Your task to perform on an android device: turn on javascript in the chrome app Image 0: 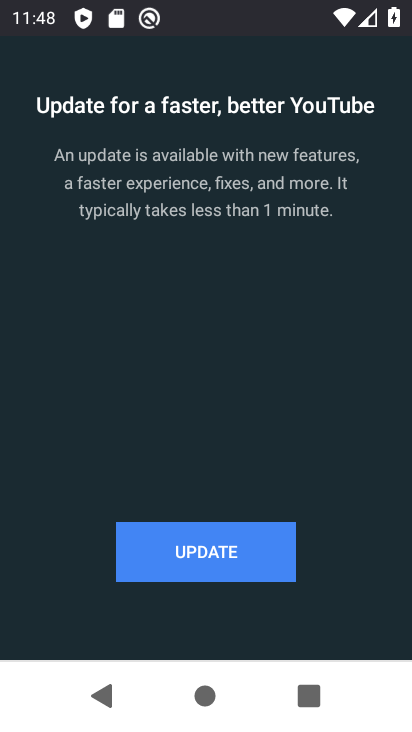
Step 0: press home button
Your task to perform on an android device: turn on javascript in the chrome app Image 1: 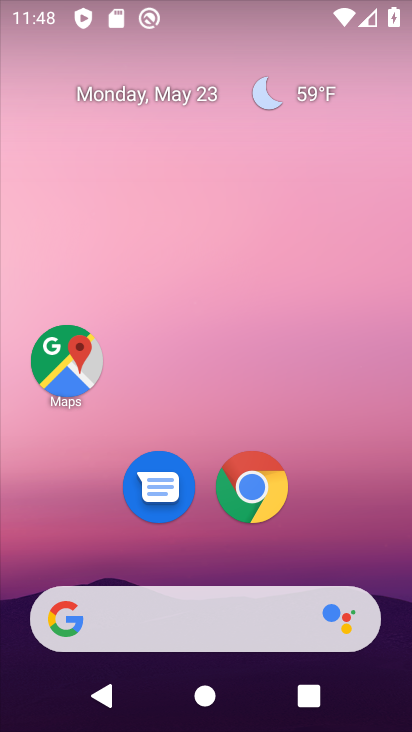
Step 1: click (262, 478)
Your task to perform on an android device: turn on javascript in the chrome app Image 2: 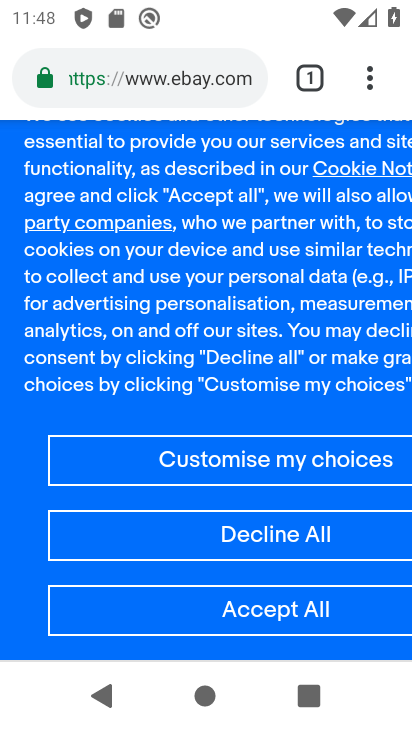
Step 2: click (372, 86)
Your task to perform on an android device: turn on javascript in the chrome app Image 3: 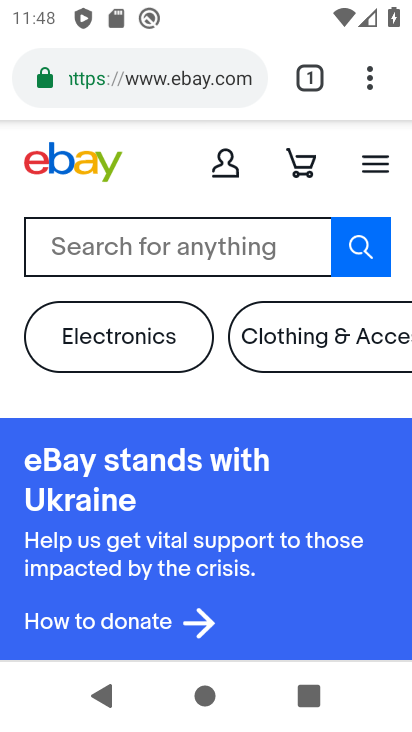
Step 3: click (372, 86)
Your task to perform on an android device: turn on javascript in the chrome app Image 4: 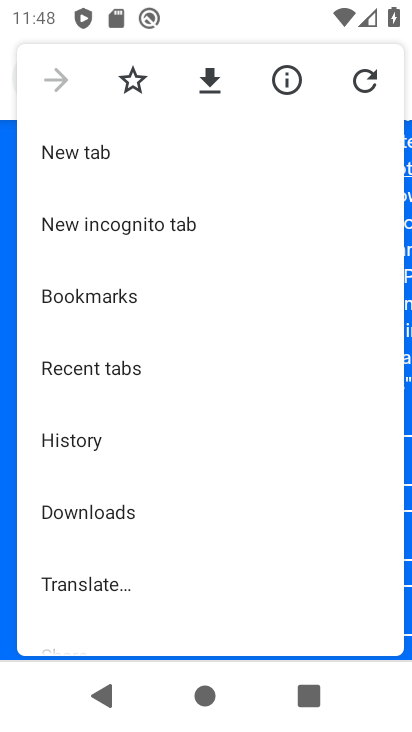
Step 4: drag from (146, 573) to (231, 161)
Your task to perform on an android device: turn on javascript in the chrome app Image 5: 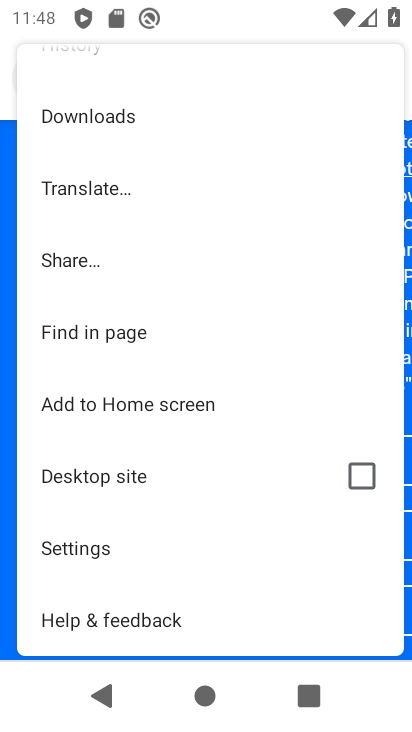
Step 5: click (190, 548)
Your task to perform on an android device: turn on javascript in the chrome app Image 6: 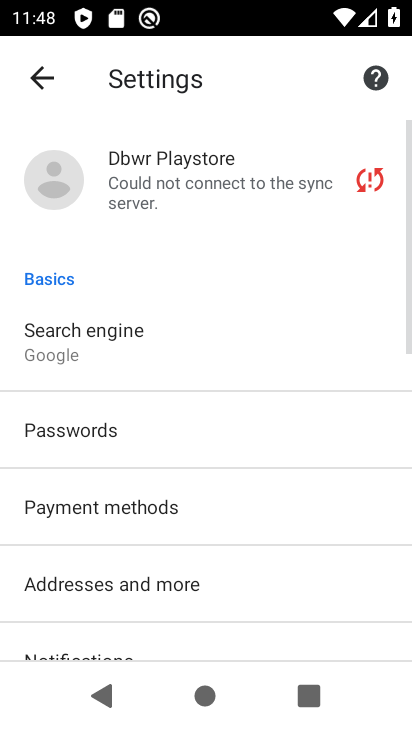
Step 6: drag from (190, 603) to (214, 101)
Your task to perform on an android device: turn on javascript in the chrome app Image 7: 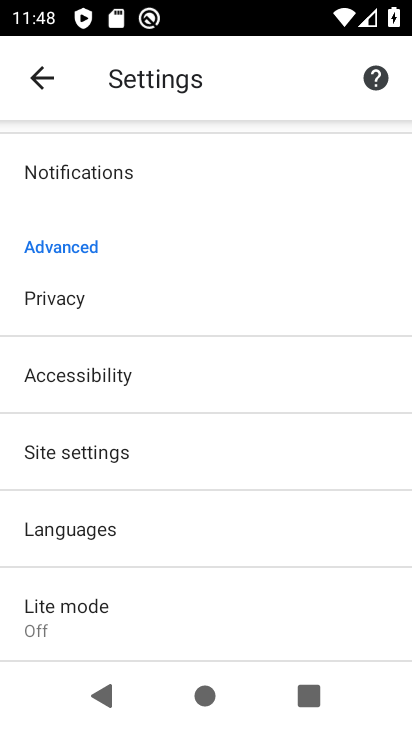
Step 7: drag from (130, 583) to (135, 396)
Your task to perform on an android device: turn on javascript in the chrome app Image 8: 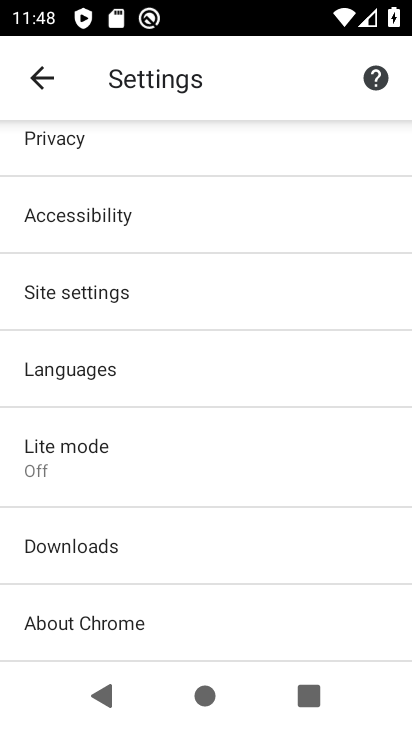
Step 8: click (122, 281)
Your task to perform on an android device: turn on javascript in the chrome app Image 9: 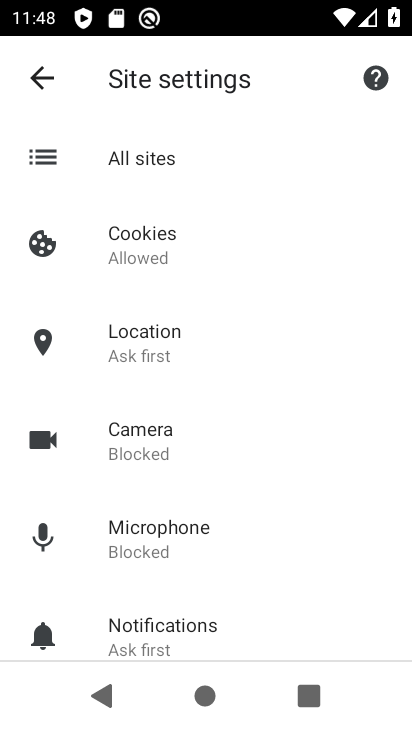
Step 9: drag from (158, 618) to (147, 368)
Your task to perform on an android device: turn on javascript in the chrome app Image 10: 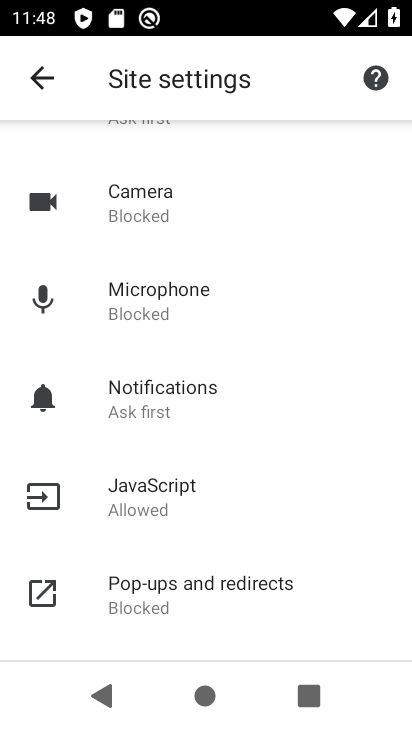
Step 10: click (176, 499)
Your task to perform on an android device: turn on javascript in the chrome app Image 11: 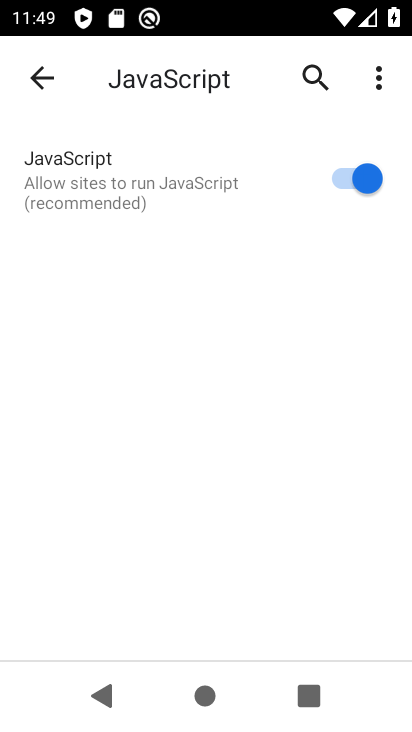
Step 11: task complete